Your task to perform on an android device: Go to sound settings Image 0: 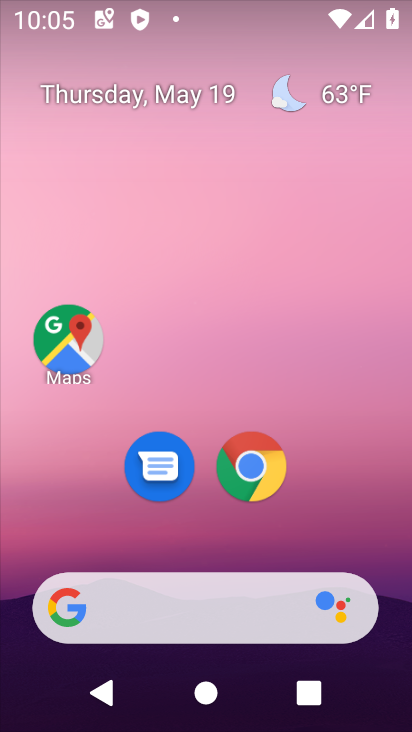
Step 0: drag from (396, 615) to (285, 45)
Your task to perform on an android device: Go to sound settings Image 1: 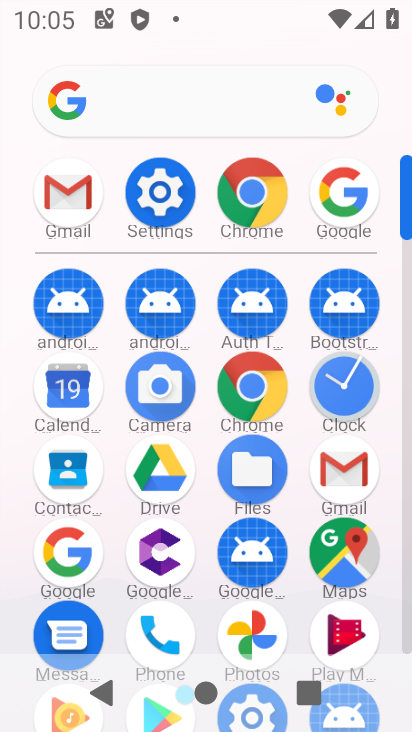
Step 1: click (186, 207)
Your task to perform on an android device: Go to sound settings Image 2: 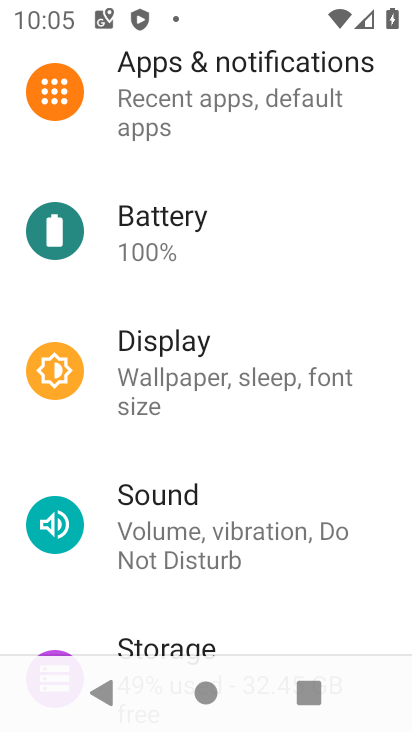
Step 2: click (291, 530)
Your task to perform on an android device: Go to sound settings Image 3: 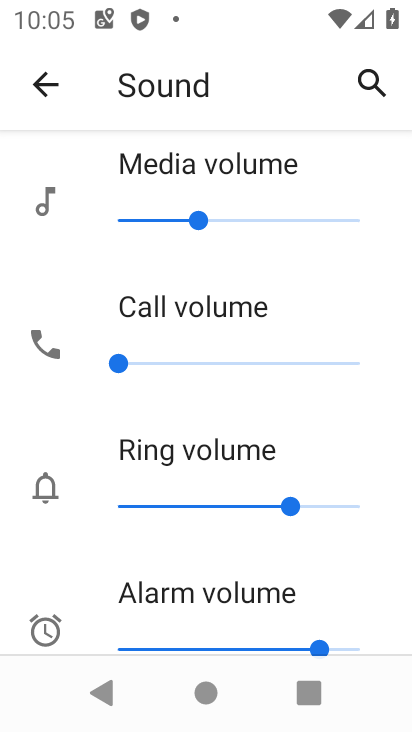
Step 3: task complete